Your task to perform on an android device: Show me productivity apps on the Play Store Image 0: 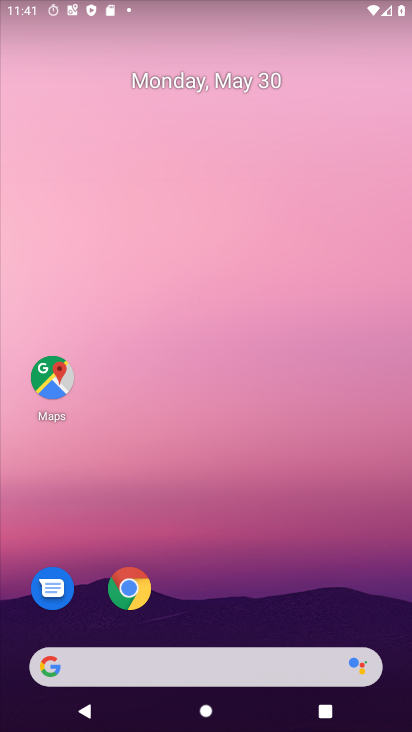
Step 0: drag from (213, 609) to (224, 0)
Your task to perform on an android device: Show me productivity apps on the Play Store Image 1: 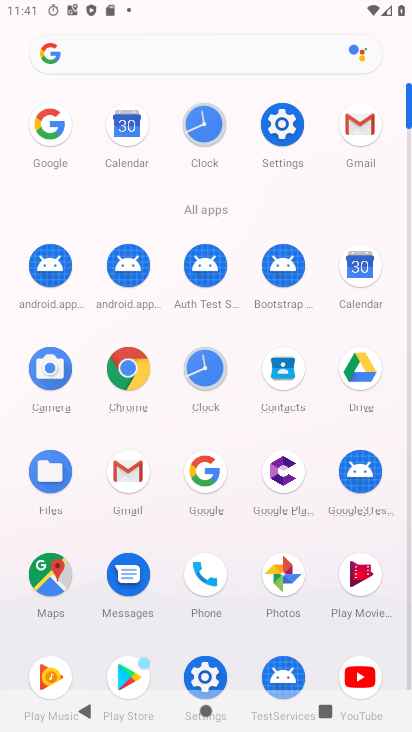
Step 1: click (125, 671)
Your task to perform on an android device: Show me productivity apps on the Play Store Image 2: 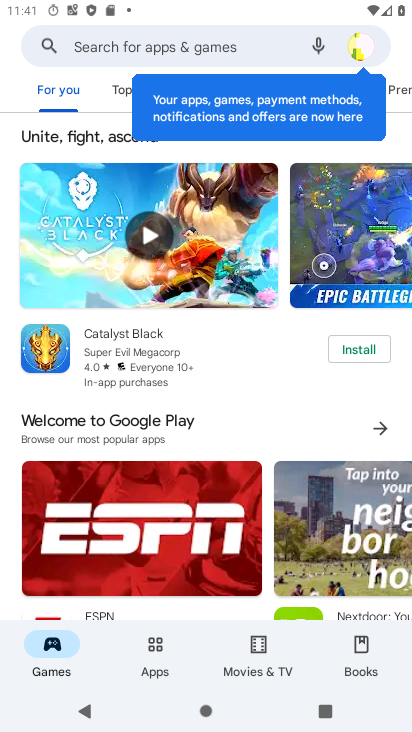
Step 2: click (151, 670)
Your task to perform on an android device: Show me productivity apps on the Play Store Image 3: 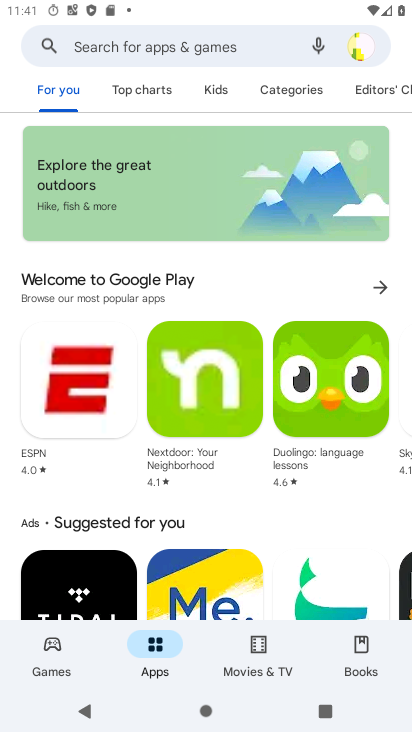
Step 3: click (290, 88)
Your task to perform on an android device: Show me productivity apps on the Play Store Image 4: 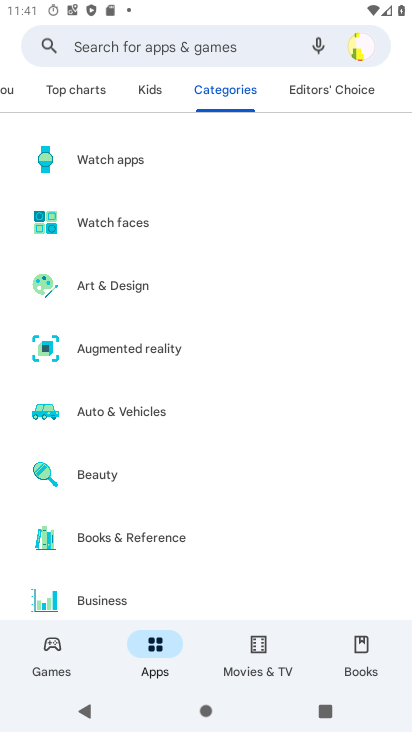
Step 4: drag from (176, 600) to (205, 61)
Your task to perform on an android device: Show me productivity apps on the Play Store Image 5: 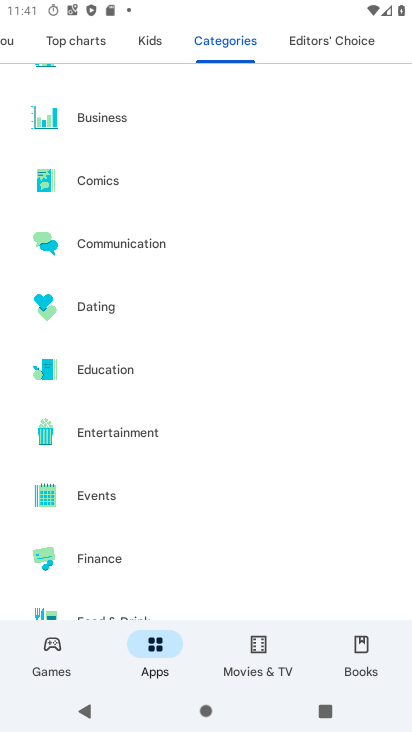
Step 5: drag from (167, 574) to (174, 0)
Your task to perform on an android device: Show me productivity apps on the Play Store Image 6: 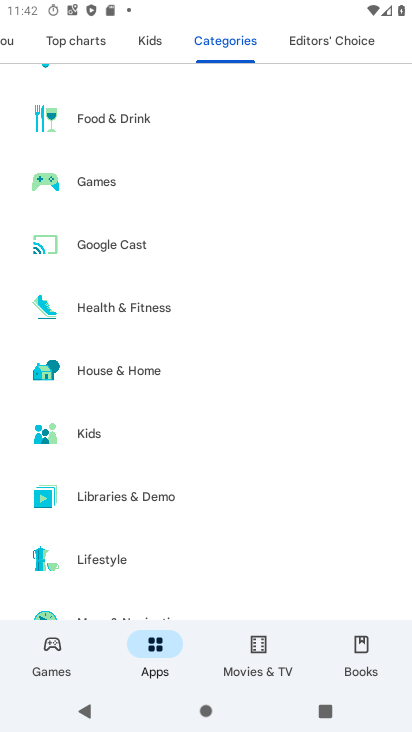
Step 6: drag from (191, 560) to (189, 126)
Your task to perform on an android device: Show me productivity apps on the Play Store Image 7: 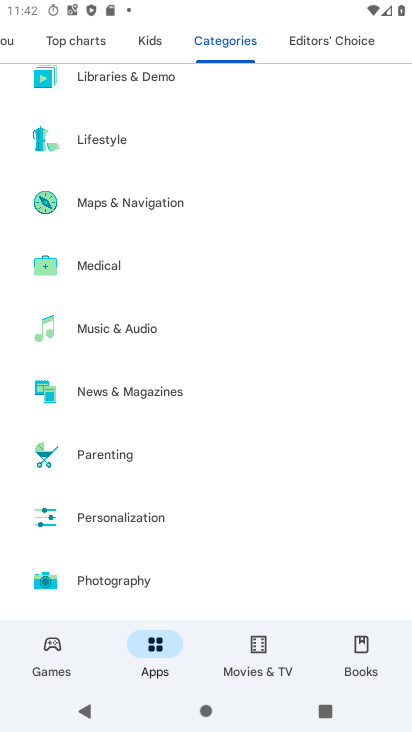
Step 7: drag from (184, 583) to (176, 153)
Your task to perform on an android device: Show me productivity apps on the Play Store Image 8: 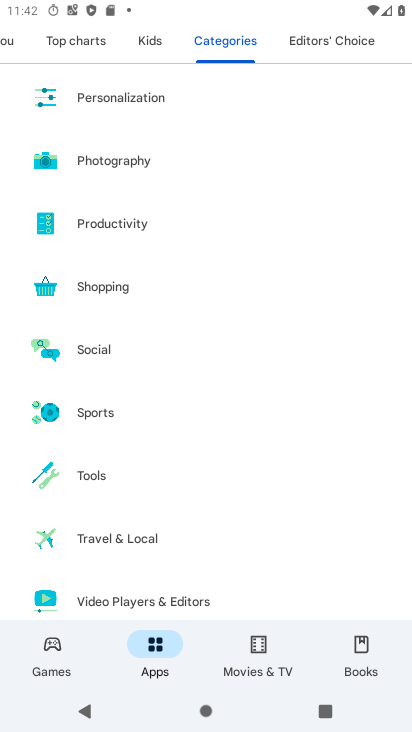
Step 8: click (144, 221)
Your task to perform on an android device: Show me productivity apps on the Play Store Image 9: 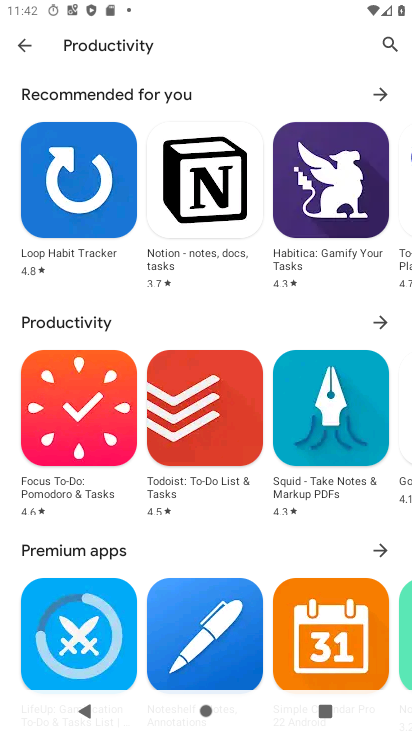
Step 9: task complete